Your task to perform on an android device: allow cookies in the chrome app Image 0: 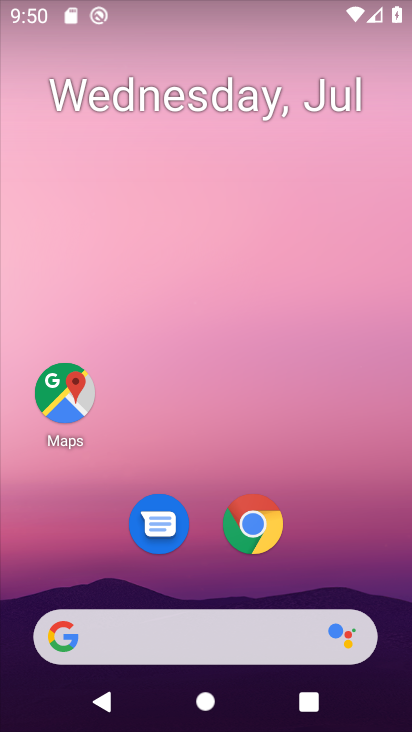
Step 0: click (262, 522)
Your task to perform on an android device: allow cookies in the chrome app Image 1: 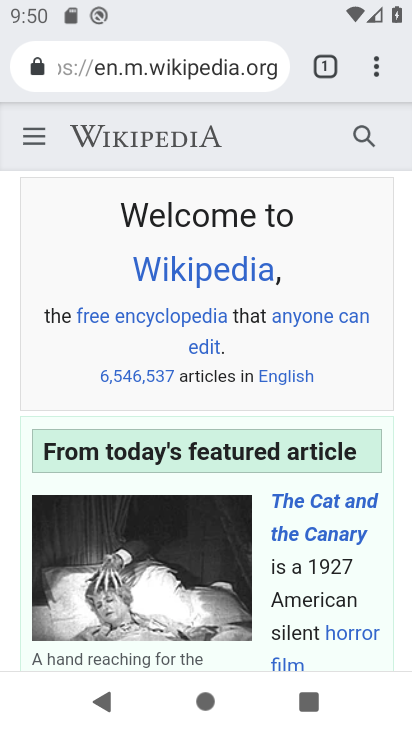
Step 1: click (377, 65)
Your task to perform on an android device: allow cookies in the chrome app Image 2: 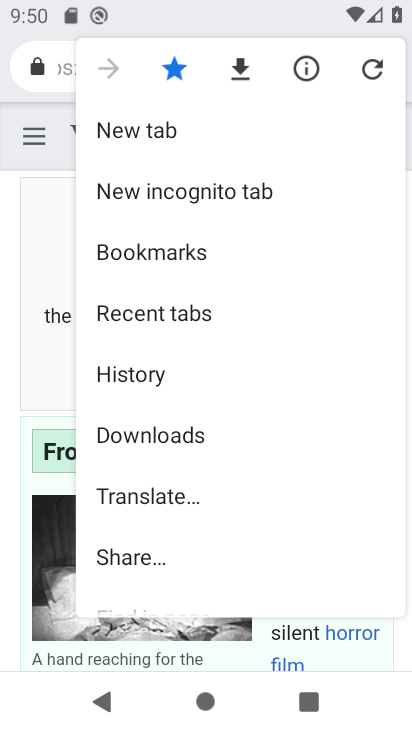
Step 2: drag from (221, 458) to (219, 83)
Your task to perform on an android device: allow cookies in the chrome app Image 3: 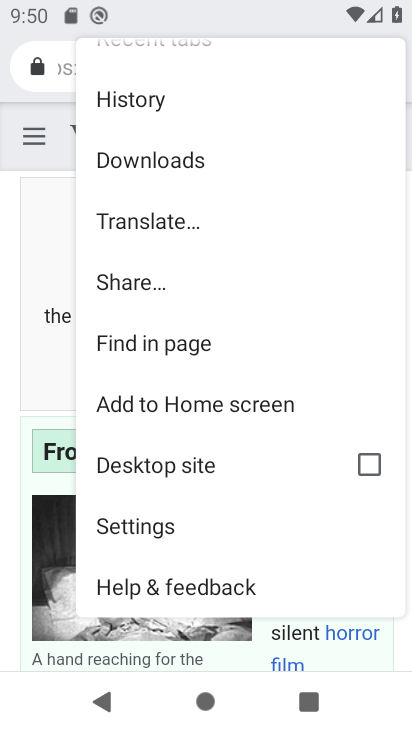
Step 3: click (176, 524)
Your task to perform on an android device: allow cookies in the chrome app Image 4: 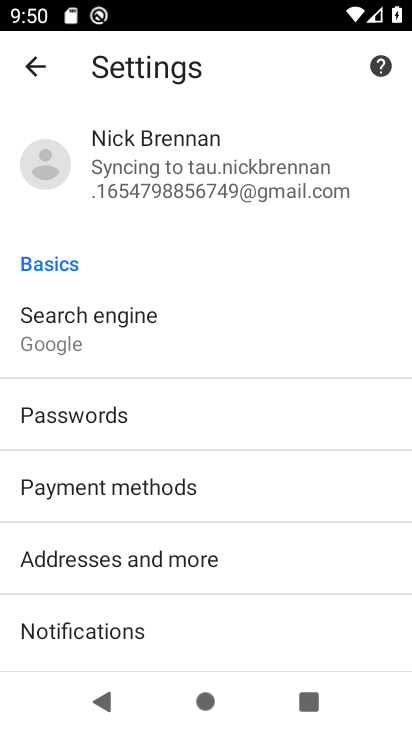
Step 4: drag from (230, 619) to (225, 227)
Your task to perform on an android device: allow cookies in the chrome app Image 5: 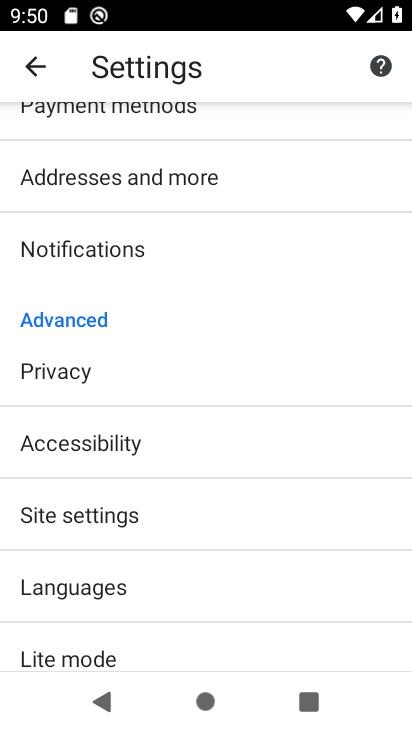
Step 5: click (150, 516)
Your task to perform on an android device: allow cookies in the chrome app Image 6: 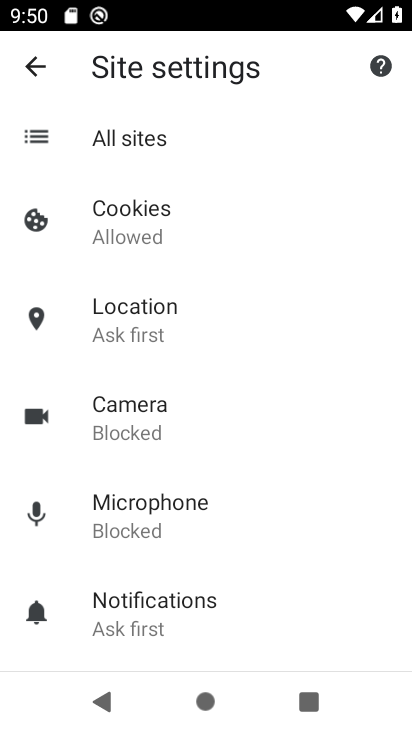
Step 6: click (164, 217)
Your task to perform on an android device: allow cookies in the chrome app Image 7: 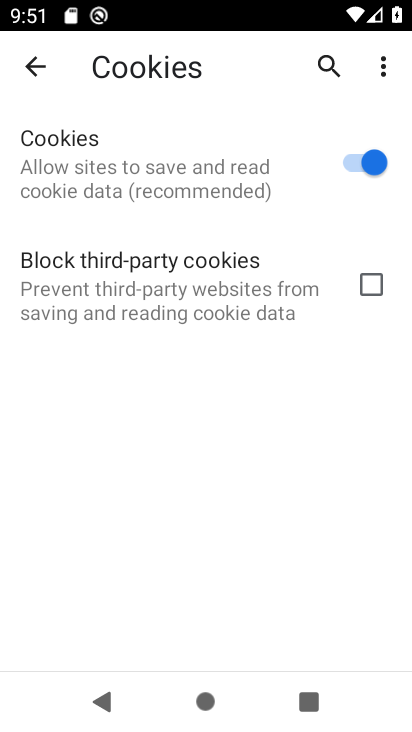
Step 7: task complete